Your task to perform on an android device: empty trash in google photos Image 0: 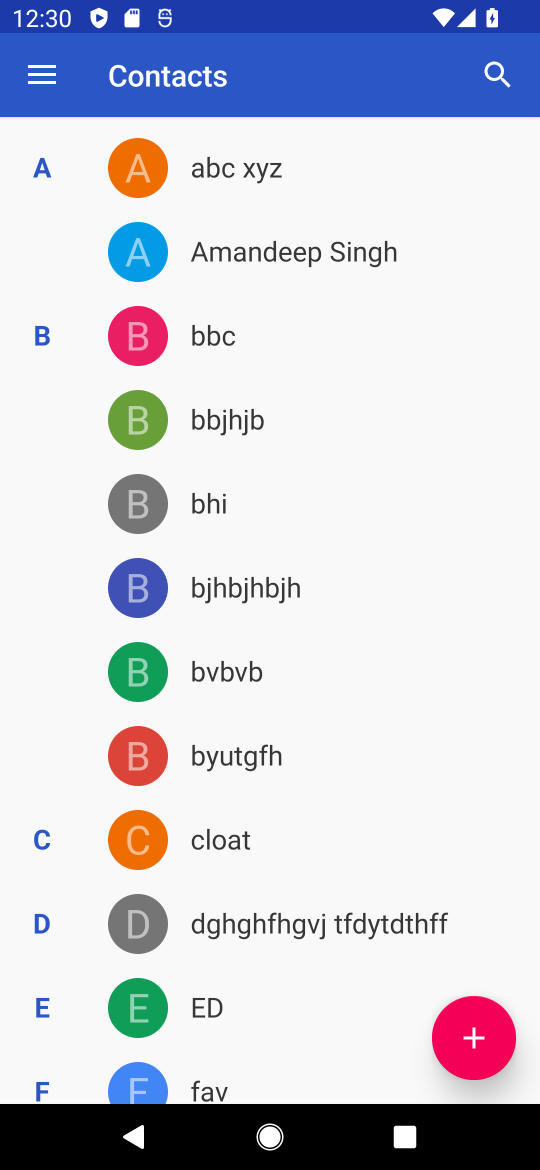
Step 0: press back button
Your task to perform on an android device: empty trash in google photos Image 1: 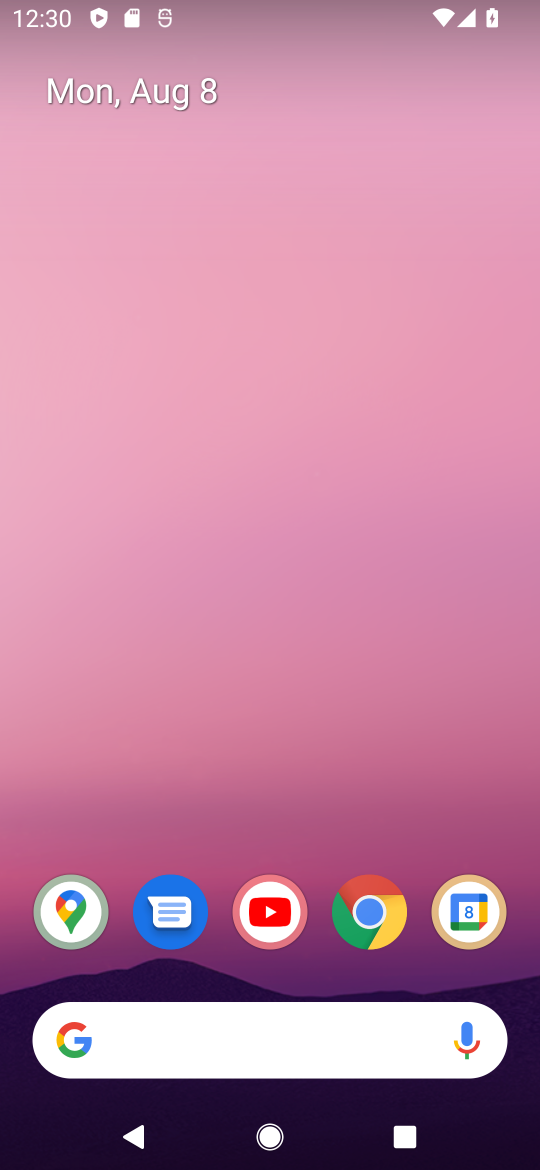
Step 1: drag from (266, 987) to (425, 53)
Your task to perform on an android device: empty trash in google photos Image 2: 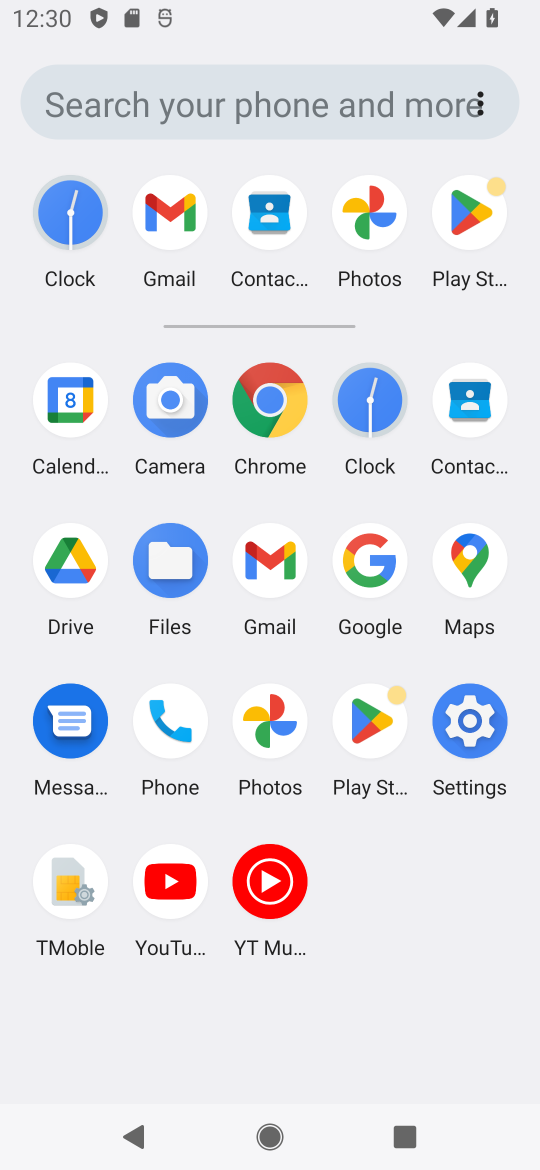
Step 2: click (257, 719)
Your task to perform on an android device: empty trash in google photos Image 3: 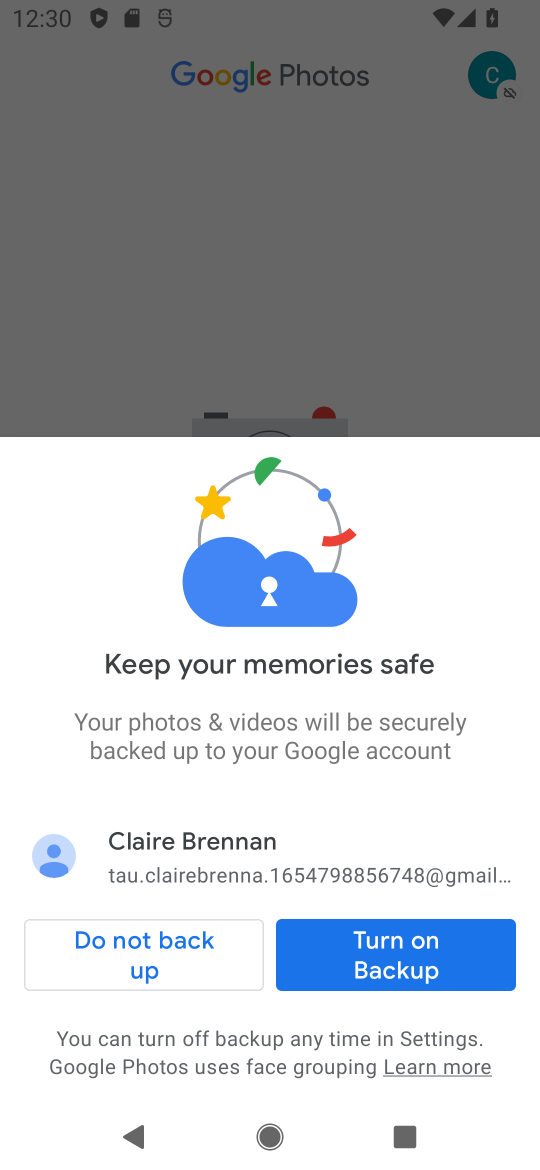
Step 3: click (164, 962)
Your task to perform on an android device: empty trash in google photos Image 4: 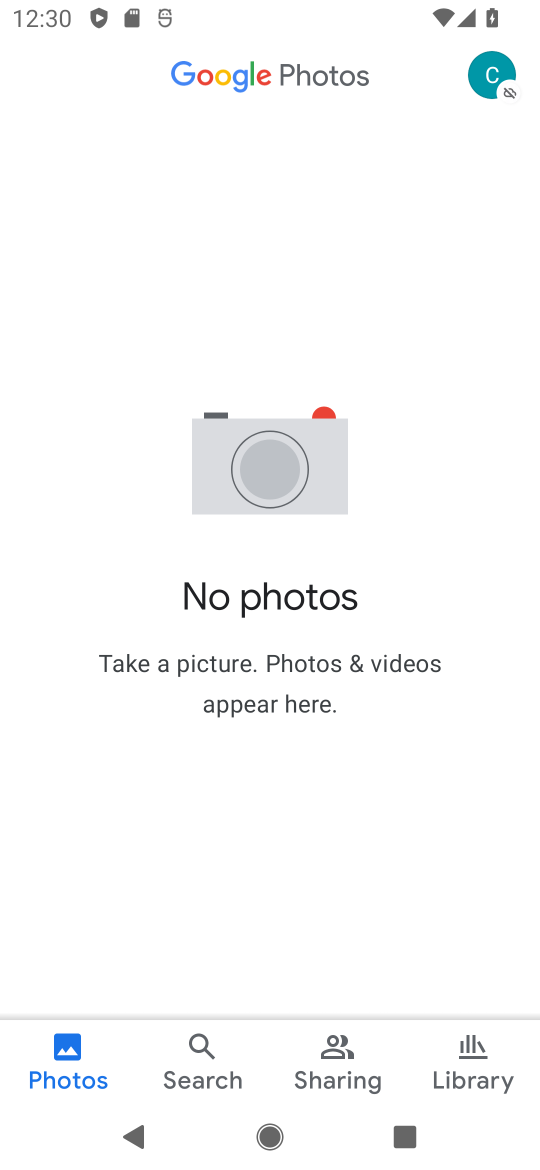
Step 4: click (495, 80)
Your task to perform on an android device: empty trash in google photos Image 5: 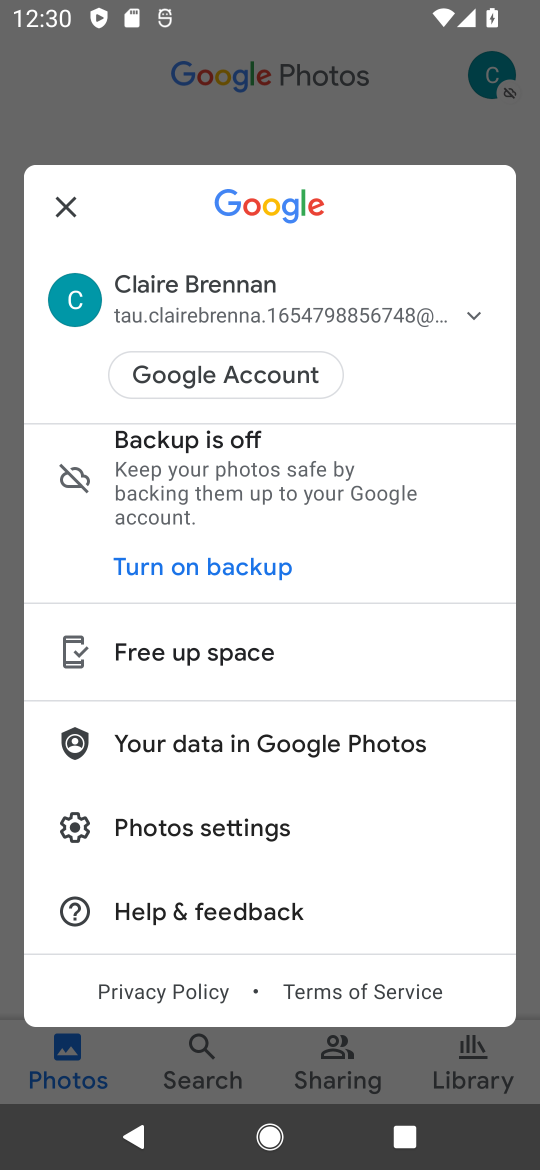
Step 5: task complete